Your task to perform on an android device: Open Wikipedia Image 0: 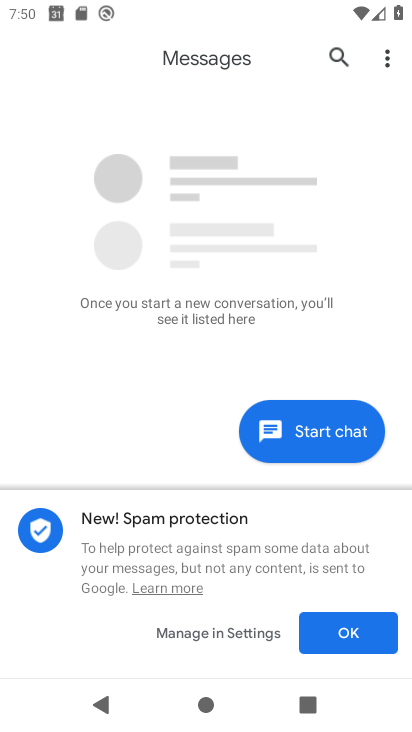
Step 0: press home button
Your task to perform on an android device: Open Wikipedia Image 1: 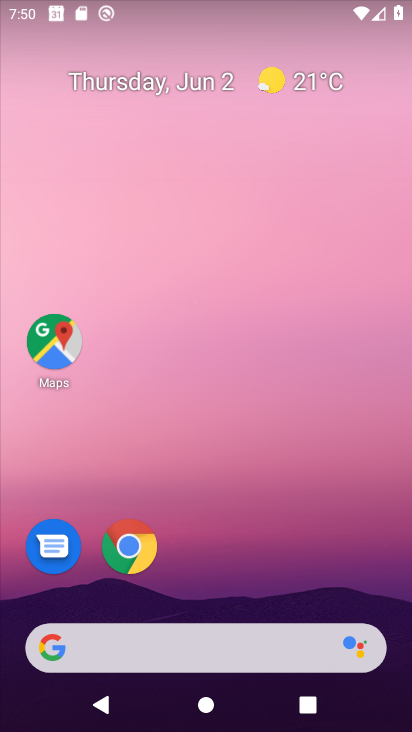
Step 1: drag from (390, 581) to (389, 151)
Your task to perform on an android device: Open Wikipedia Image 2: 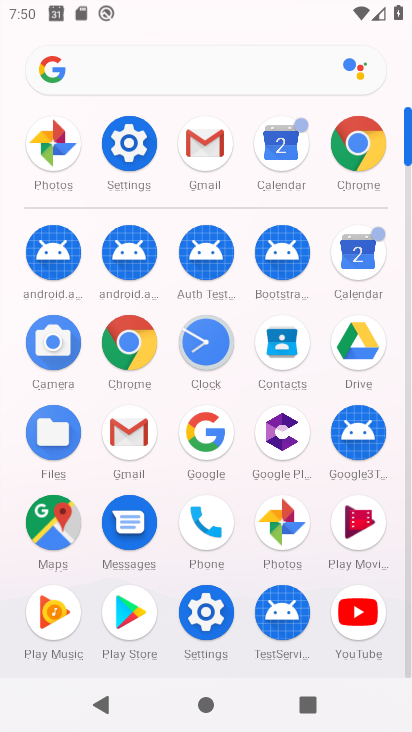
Step 2: click (134, 381)
Your task to perform on an android device: Open Wikipedia Image 3: 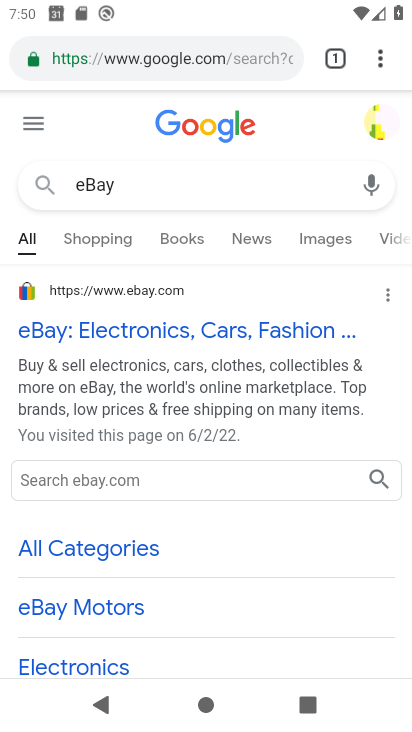
Step 3: click (332, 69)
Your task to perform on an android device: Open Wikipedia Image 4: 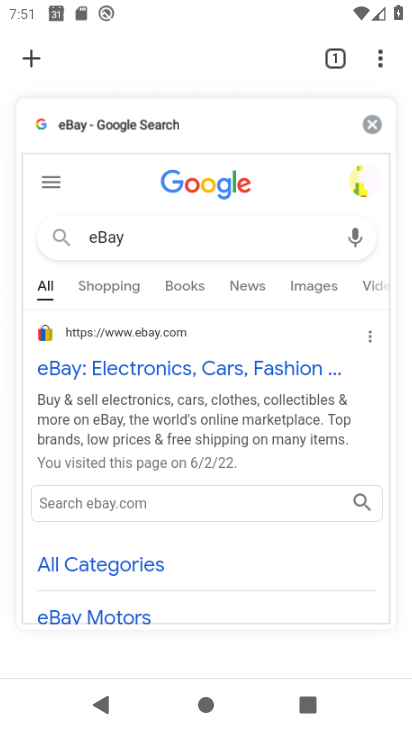
Step 4: click (17, 66)
Your task to perform on an android device: Open Wikipedia Image 5: 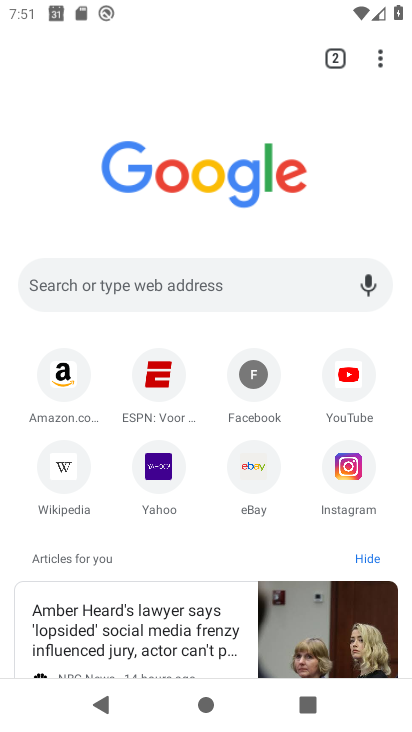
Step 5: click (62, 491)
Your task to perform on an android device: Open Wikipedia Image 6: 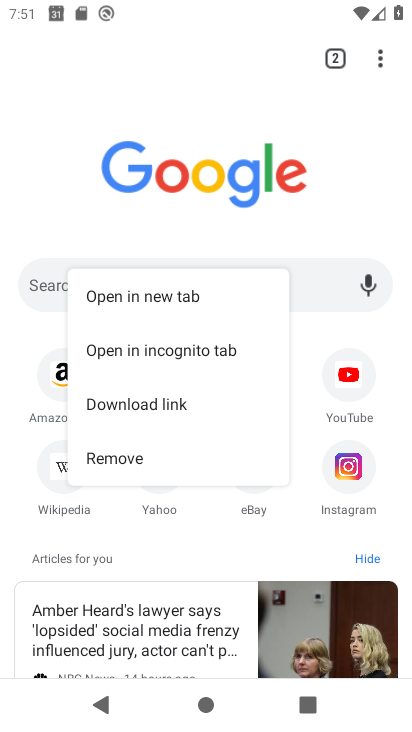
Step 6: click (61, 468)
Your task to perform on an android device: Open Wikipedia Image 7: 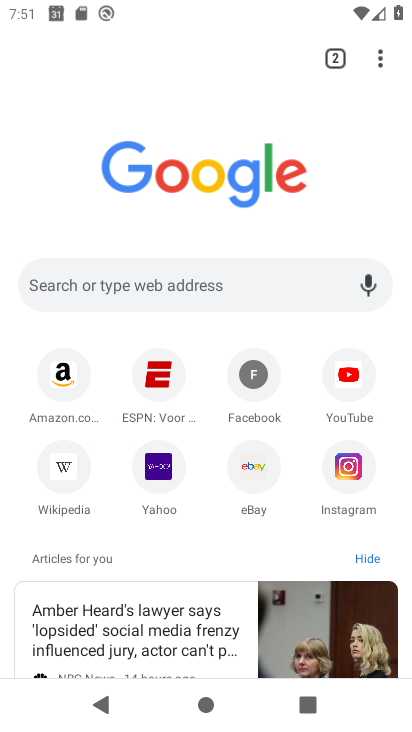
Step 7: click (56, 470)
Your task to perform on an android device: Open Wikipedia Image 8: 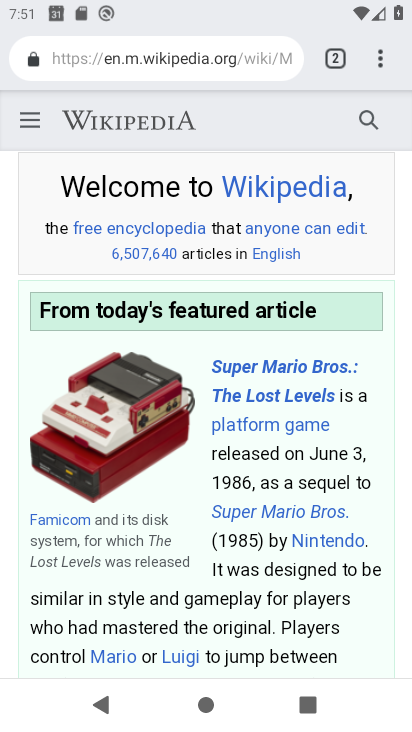
Step 8: task complete